Your task to perform on an android device: install app "Truecaller" Image 0: 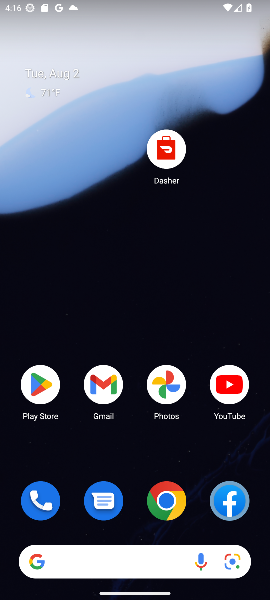
Step 0: click (37, 386)
Your task to perform on an android device: install app "Truecaller" Image 1: 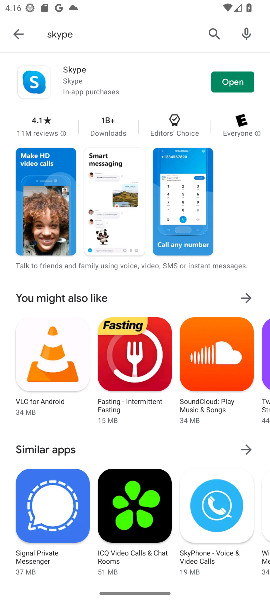
Step 1: click (216, 33)
Your task to perform on an android device: install app "Truecaller" Image 2: 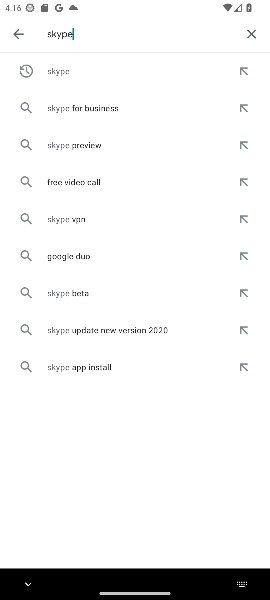
Step 2: click (245, 36)
Your task to perform on an android device: install app "Truecaller" Image 3: 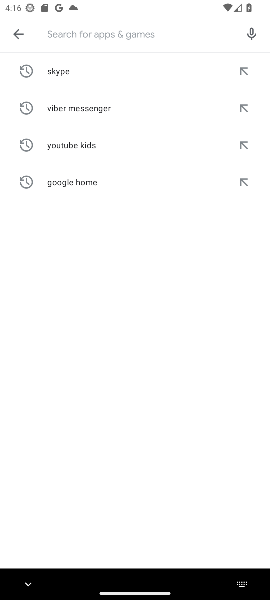
Step 3: type "Truecaller"
Your task to perform on an android device: install app "Truecaller" Image 4: 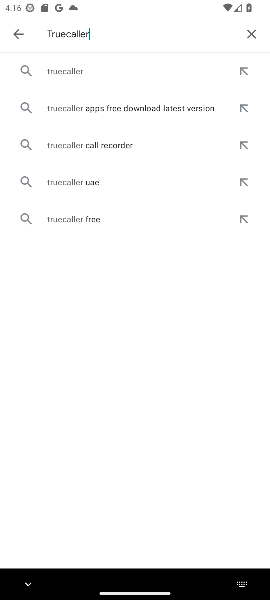
Step 4: click (56, 72)
Your task to perform on an android device: install app "Truecaller" Image 5: 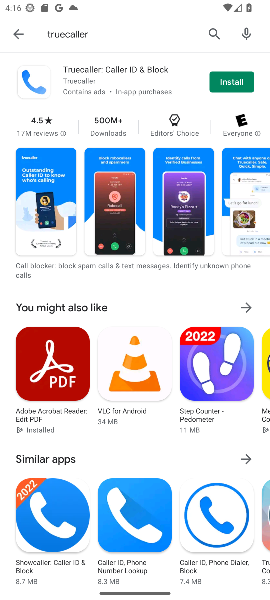
Step 5: click (233, 81)
Your task to perform on an android device: install app "Truecaller" Image 6: 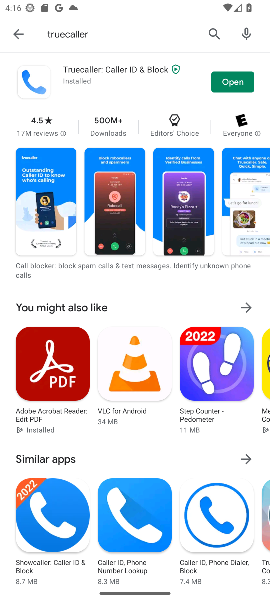
Step 6: task complete